Your task to perform on an android device: Open network settings Image 0: 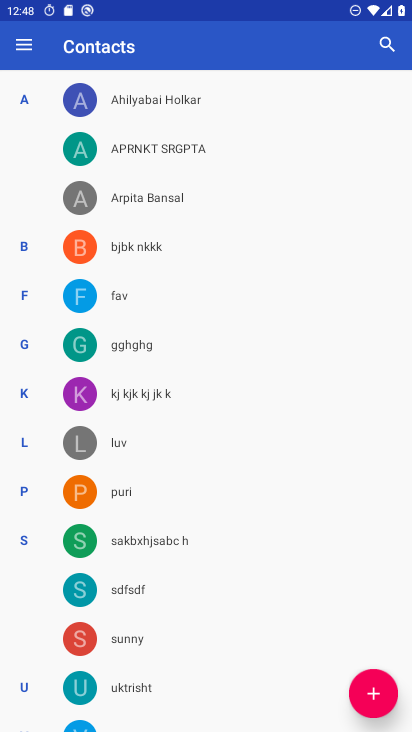
Step 0: press home button
Your task to perform on an android device: Open network settings Image 1: 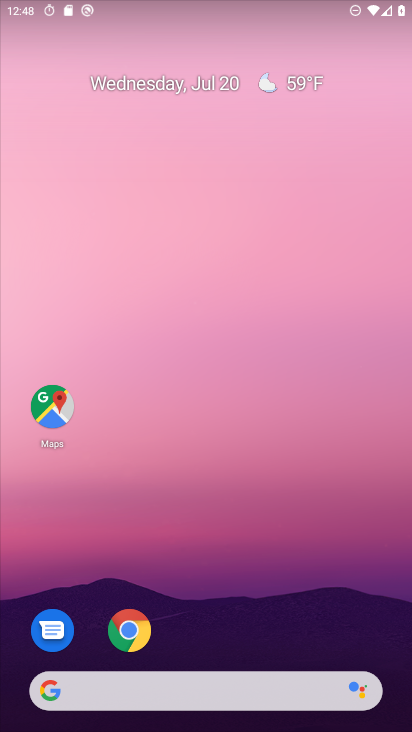
Step 1: drag from (235, 695) to (247, 10)
Your task to perform on an android device: Open network settings Image 2: 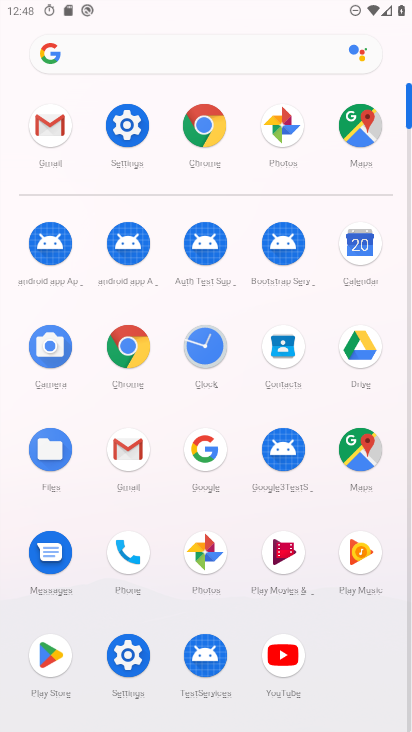
Step 2: click (114, 119)
Your task to perform on an android device: Open network settings Image 3: 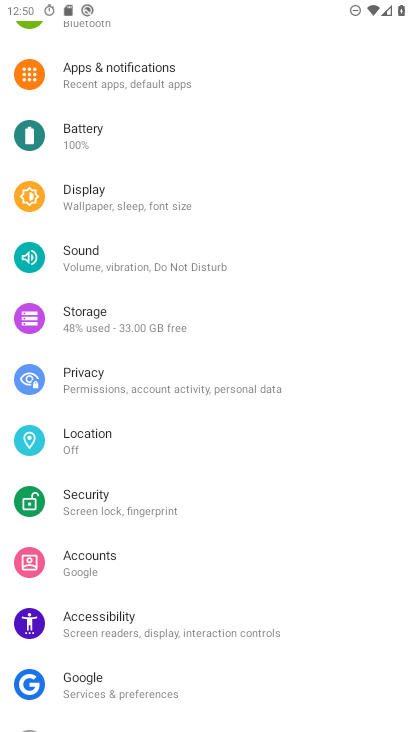
Step 3: click (123, 68)
Your task to perform on an android device: Open network settings Image 4: 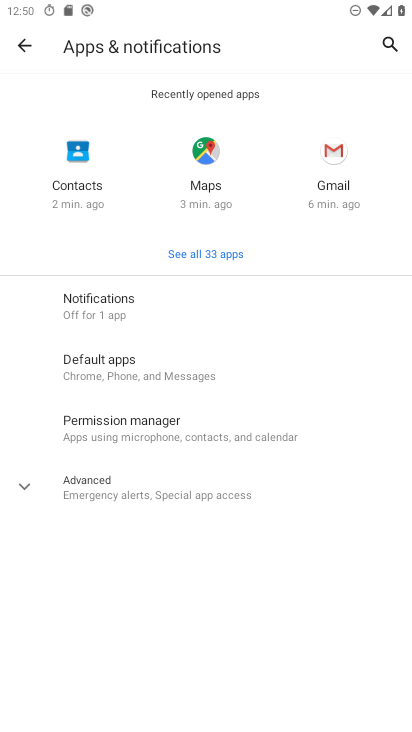
Step 4: task complete